Your task to perform on an android device: toggle sleep mode Image 0: 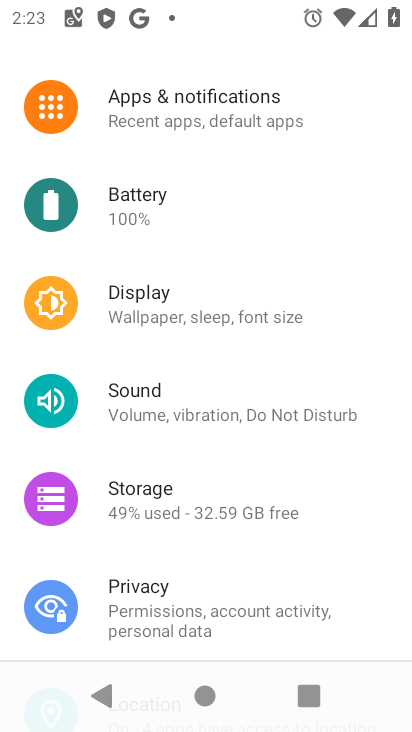
Step 0: click (216, 308)
Your task to perform on an android device: toggle sleep mode Image 1: 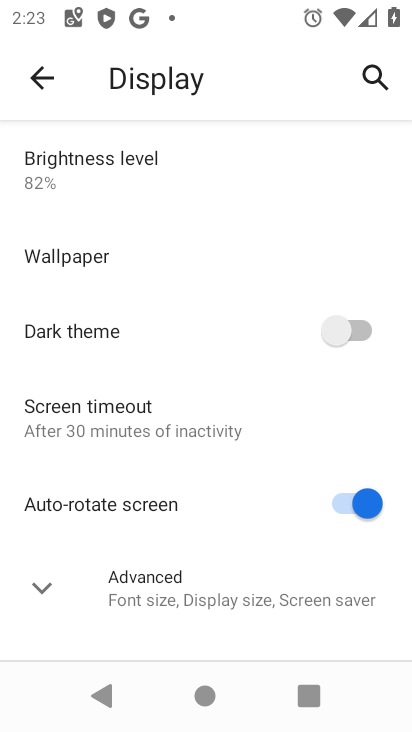
Step 1: click (141, 577)
Your task to perform on an android device: toggle sleep mode Image 2: 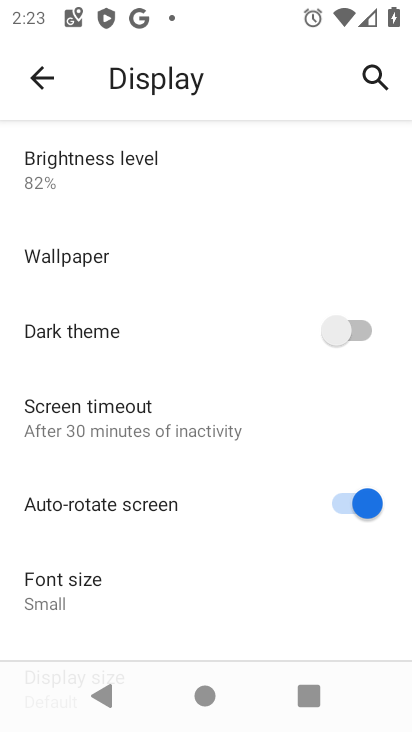
Step 2: task complete